Your task to perform on an android device: turn off location history Image 0: 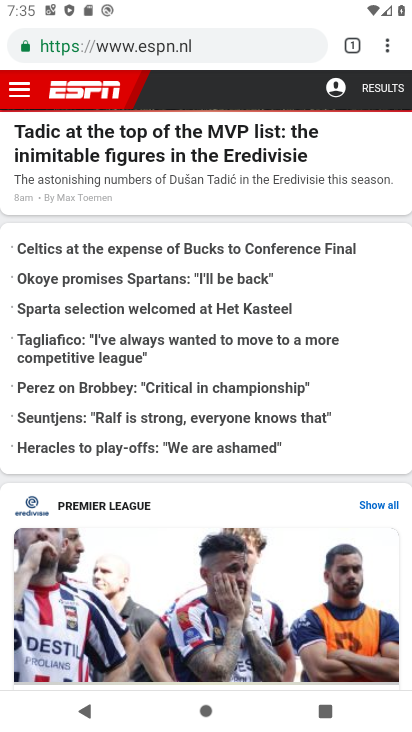
Step 0: press home button
Your task to perform on an android device: turn off location history Image 1: 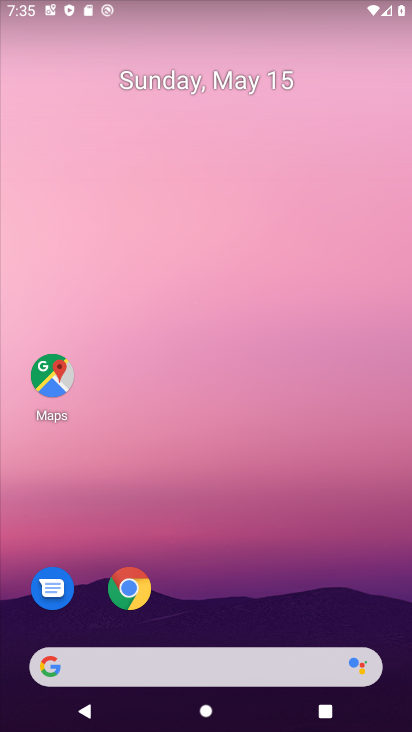
Step 1: drag from (222, 623) to (250, 50)
Your task to perform on an android device: turn off location history Image 2: 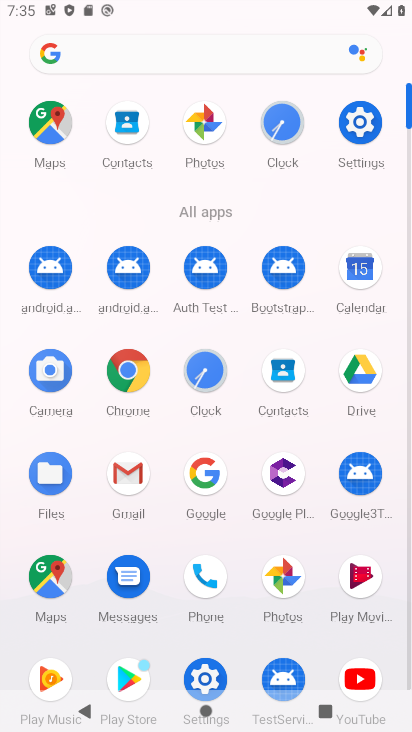
Step 2: click (357, 125)
Your task to perform on an android device: turn off location history Image 3: 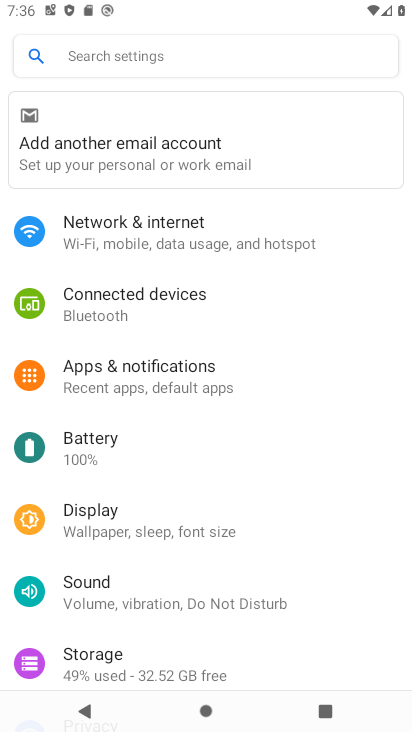
Step 3: drag from (141, 607) to (134, 26)
Your task to perform on an android device: turn off location history Image 4: 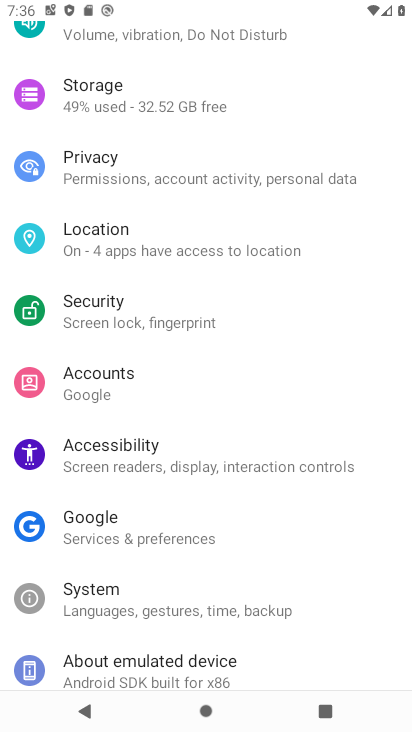
Step 4: click (123, 228)
Your task to perform on an android device: turn off location history Image 5: 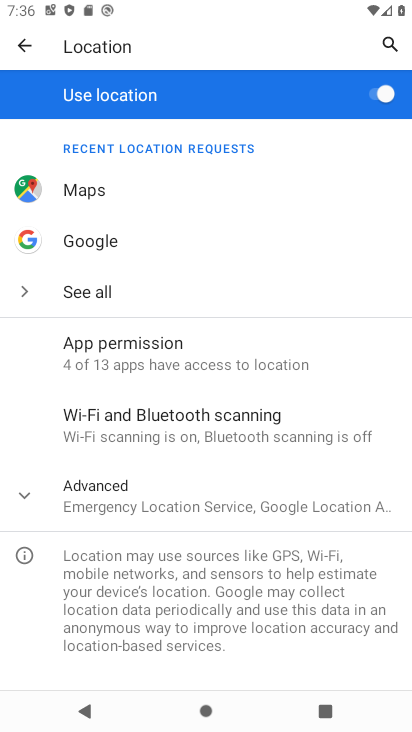
Step 5: click (27, 494)
Your task to perform on an android device: turn off location history Image 6: 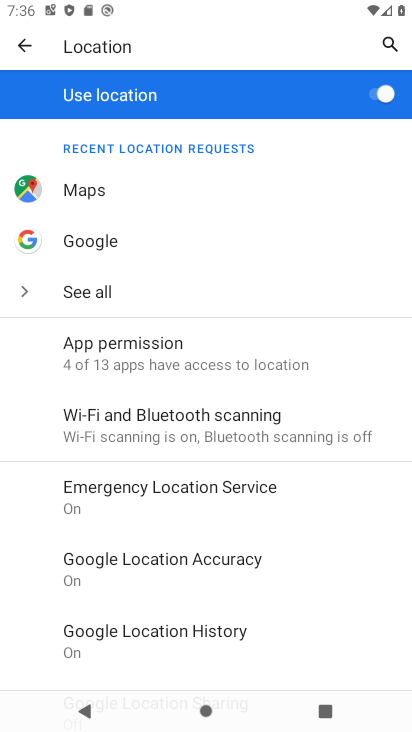
Step 6: click (175, 639)
Your task to perform on an android device: turn off location history Image 7: 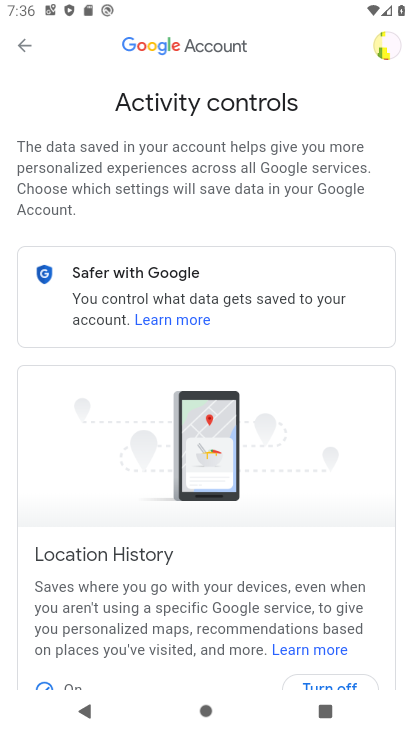
Step 7: drag from (198, 607) to (239, 121)
Your task to perform on an android device: turn off location history Image 8: 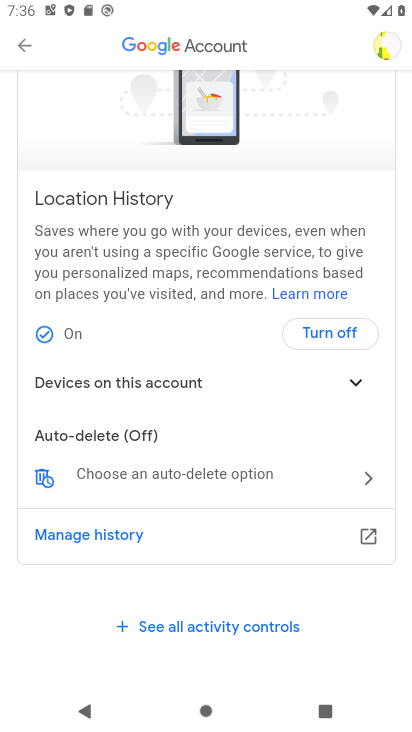
Step 8: click (322, 325)
Your task to perform on an android device: turn off location history Image 9: 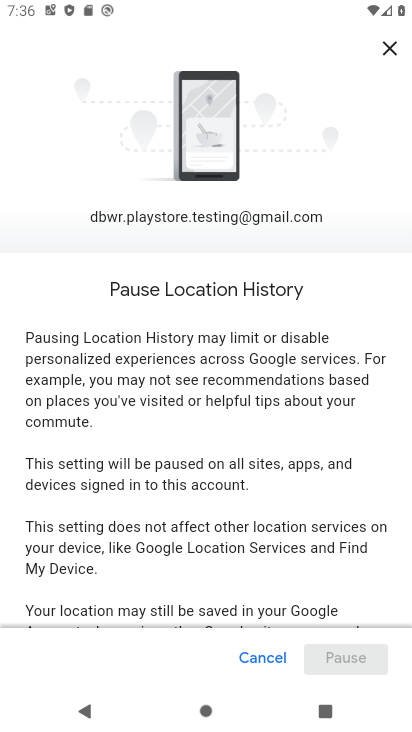
Step 9: drag from (240, 536) to (269, 52)
Your task to perform on an android device: turn off location history Image 10: 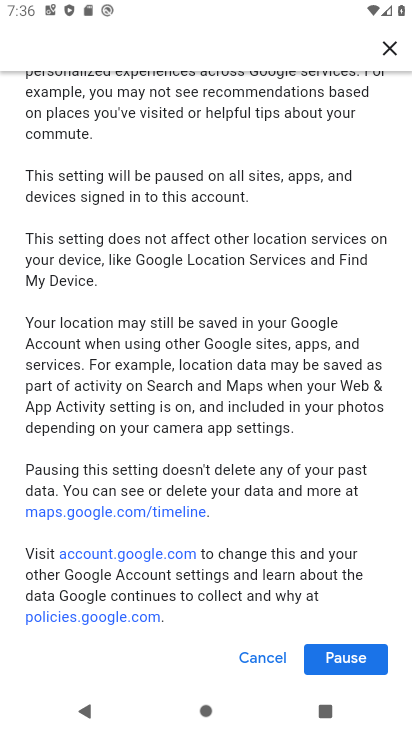
Step 10: click (338, 654)
Your task to perform on an android device: turn off location history Image 11: 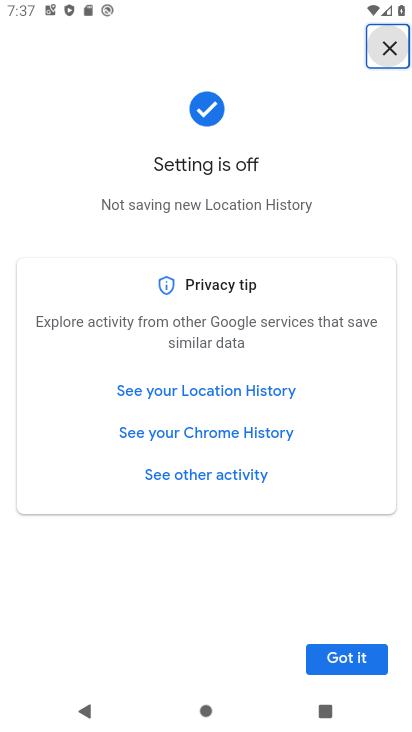
Step 11: click (342, 653)
Your task to perform on an android device: turn off location history Image 12: 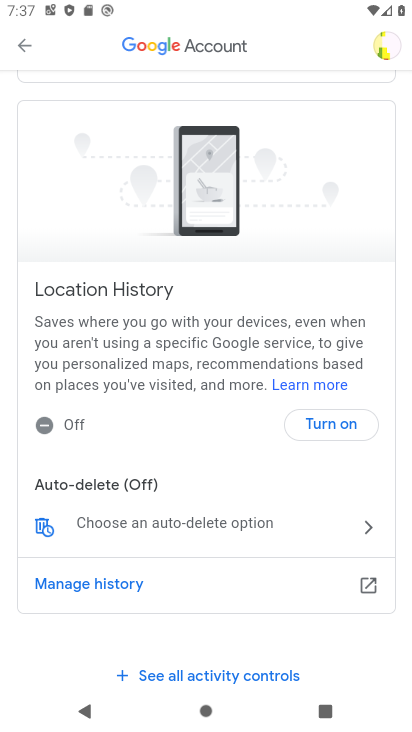
Step 12: task complete